Your task to perform on an android device: Open Google Chrome Image 0: 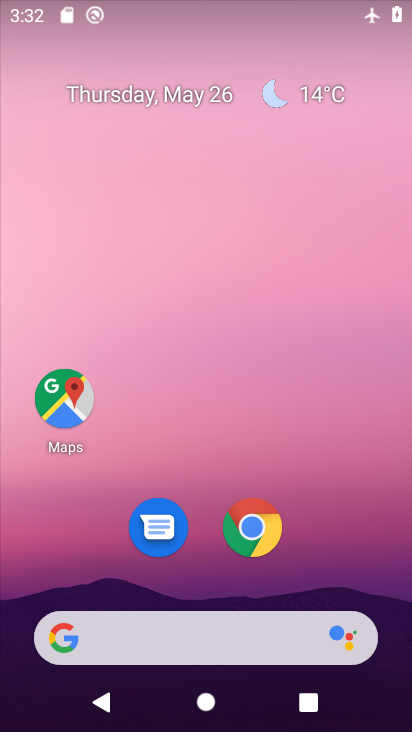
Step 0: click (261, 529)
Your task to perform on an android device: Open Google Chrome Image 1: 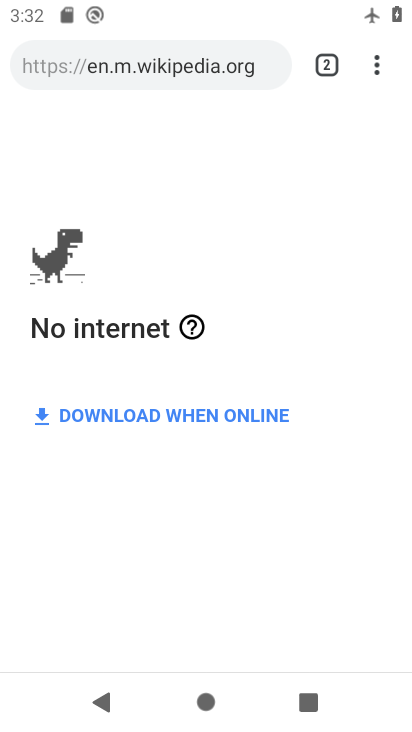
Step 1: task complete